Your task to perform on an android device: Open sound settings Image 0: 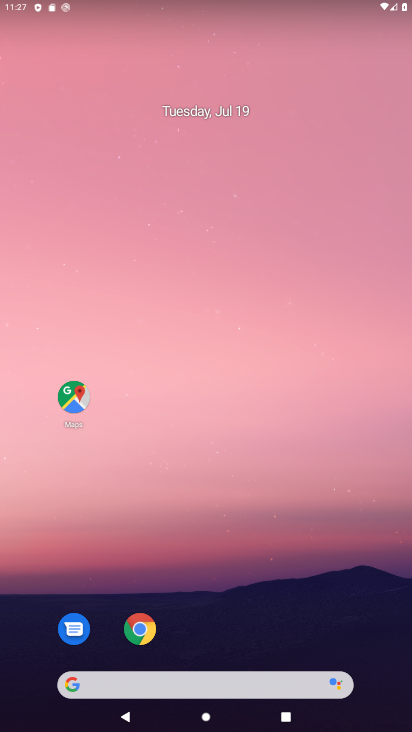
Step 0: drag from (302, 634) to (218, 12)
Your task to perform on an android device: Open sound settings Image 1: 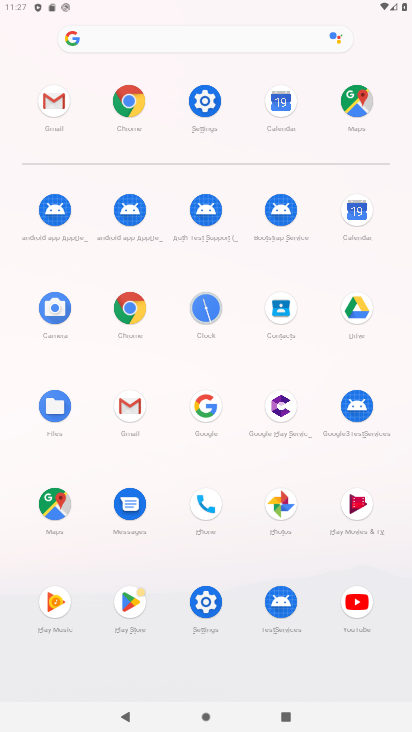
Step 1: click (207, 102)
Your task to perform on an android device: Open sound settings Image 2: 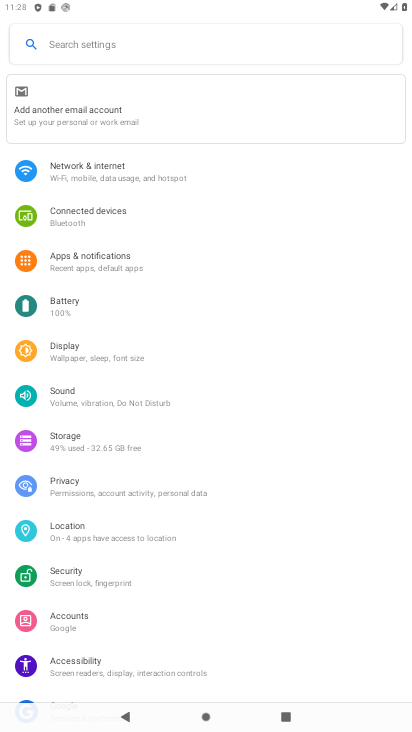
Step 2: click (166, 406)
Your task to perform on an android device: Open sound settings Image 3: 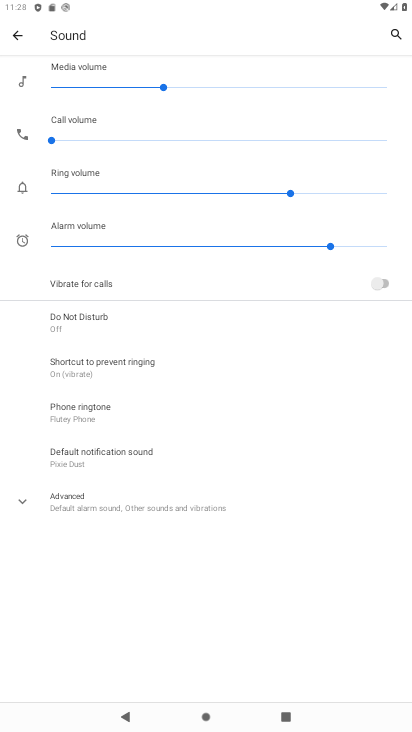
Step 3: task complete